Your task to perform on an android device: turn on wifi Image 0: 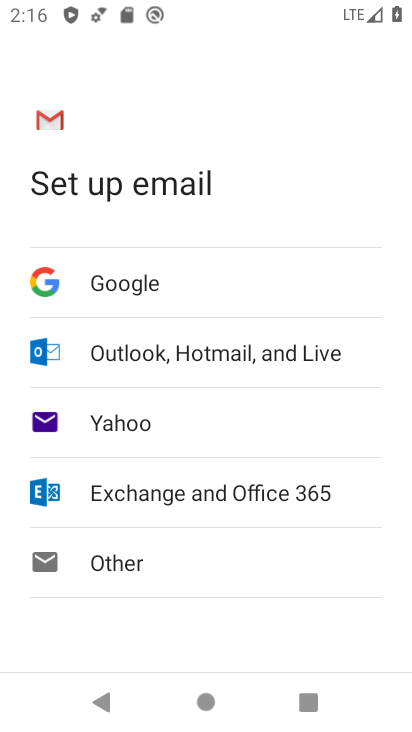
Step 0: press home button
Your task to perform on an android device: turn on wifi Image 1: 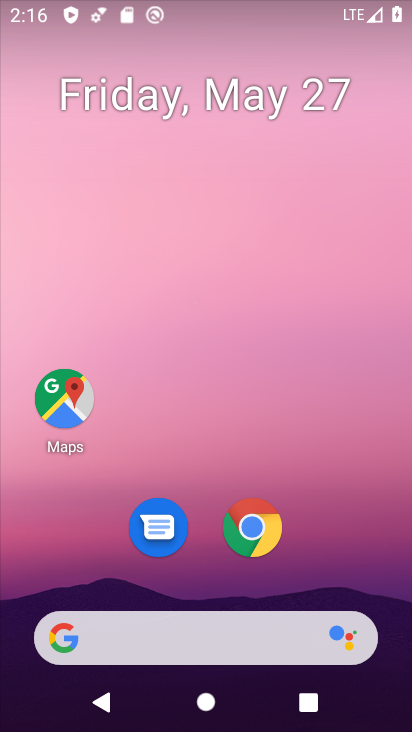
Step 1: drag from (270, 704) to (272, 76)
Your task to perform on an android device: turn on wifi Image 2: 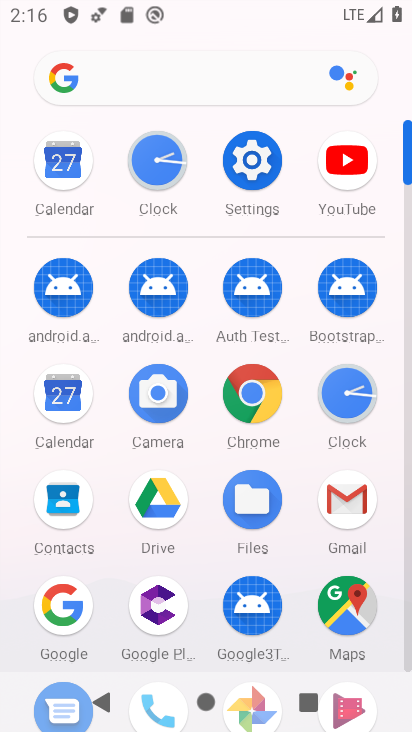
Step 2: click (253, 151)
Your task to perform on an android device: turn on wifi Image 3: 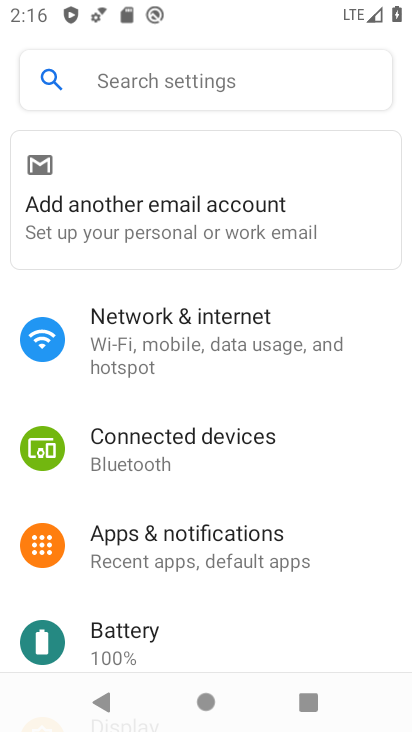
Step 3: click (224, 343)
Your task to perform on an android device: turn on wifi Image 4: 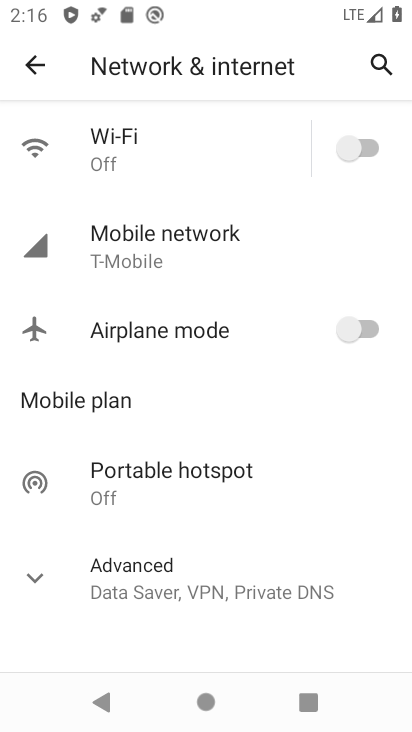
Step 4: click (358, 146)
Your task to perform on an android device: turn on wifi Image 5: 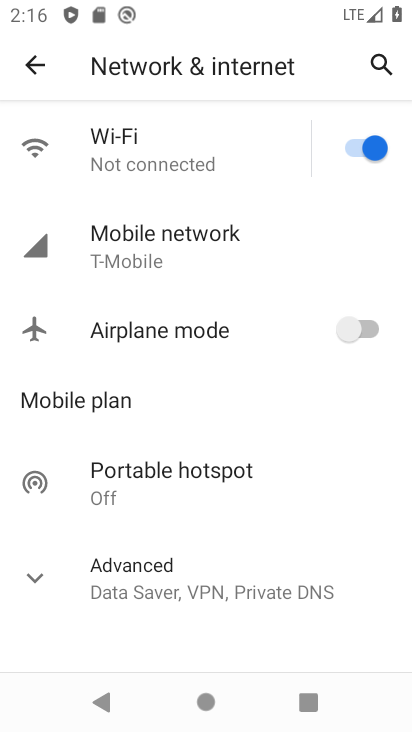
Step 5: task complete